Your task to perform on an android device: Open accessibility settings Image 0: 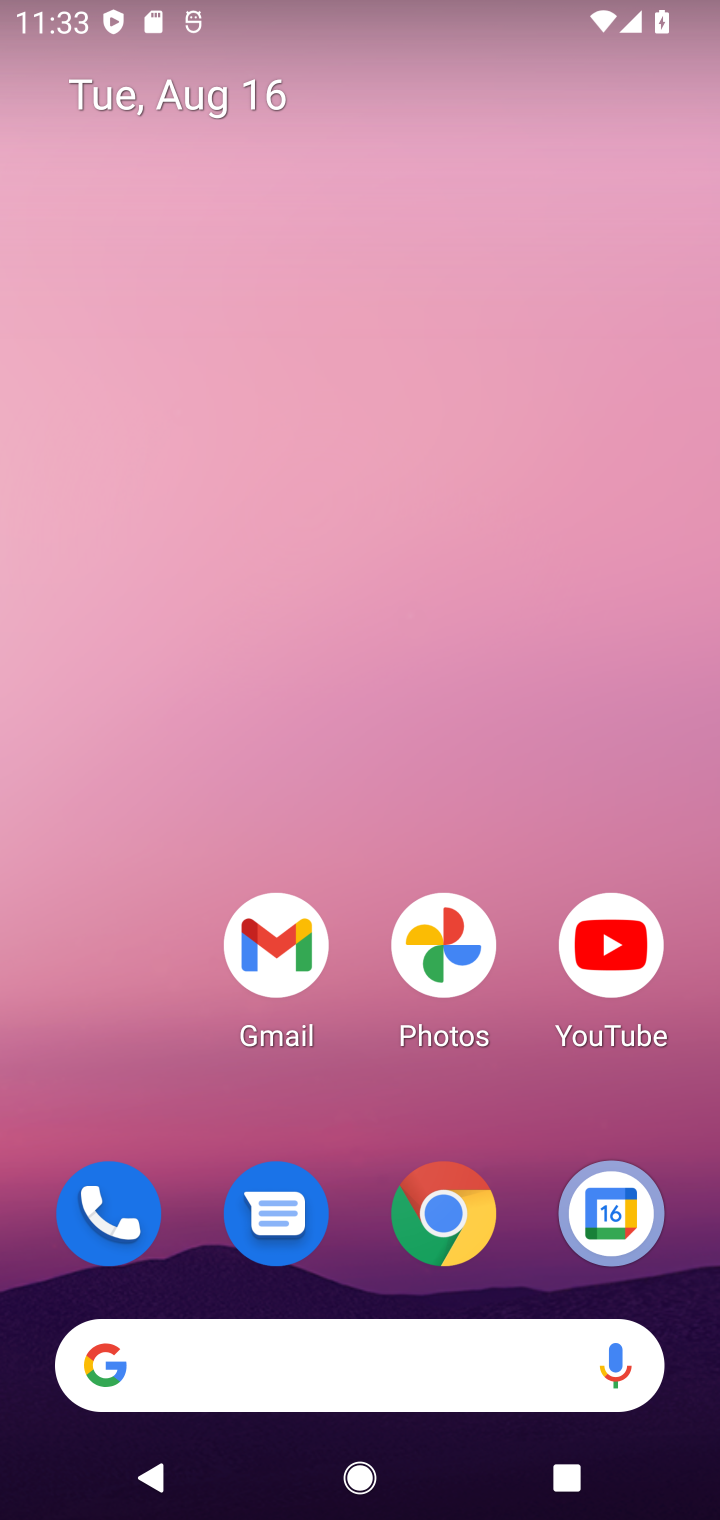
Step 0: drag from (504, 756) to (448, 47)
Your task to perform on an android device: Open accessibility settings Image 1: 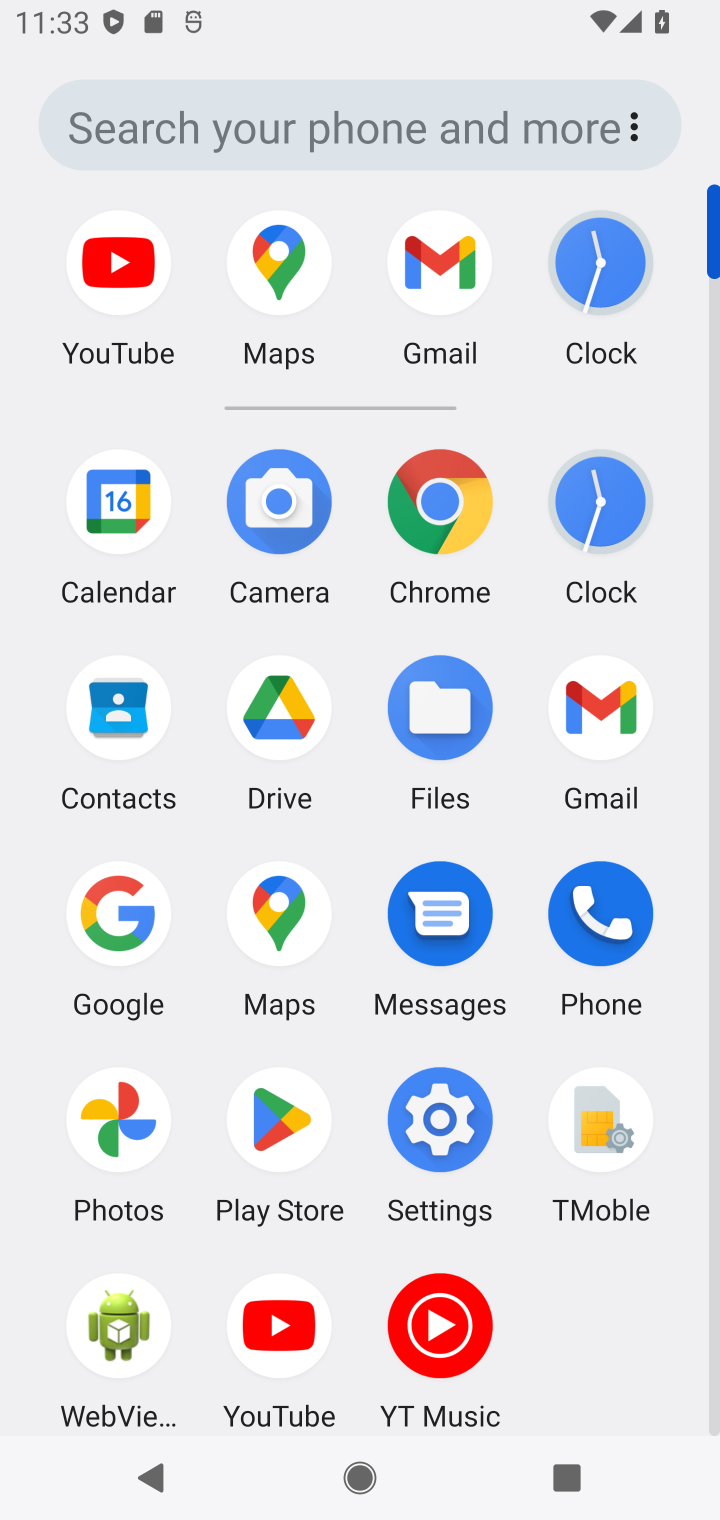
Step 1: click (450, 1126)
Your task to perform on an android device: Open accessibility settings Image 2: 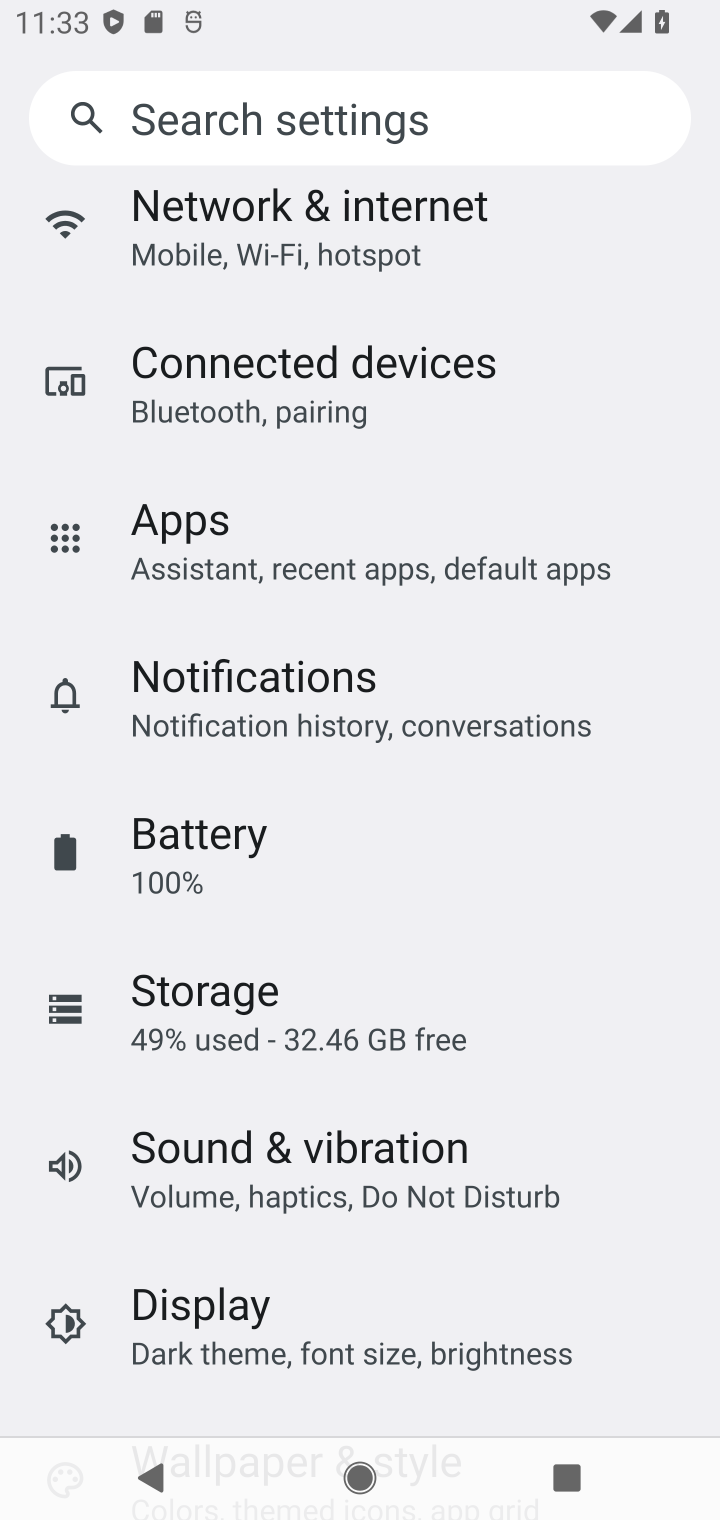
Step 2: drag from (346, 1195) to (404, 319)
Your task to perform on an android device: Open accessibility settings Image 3: 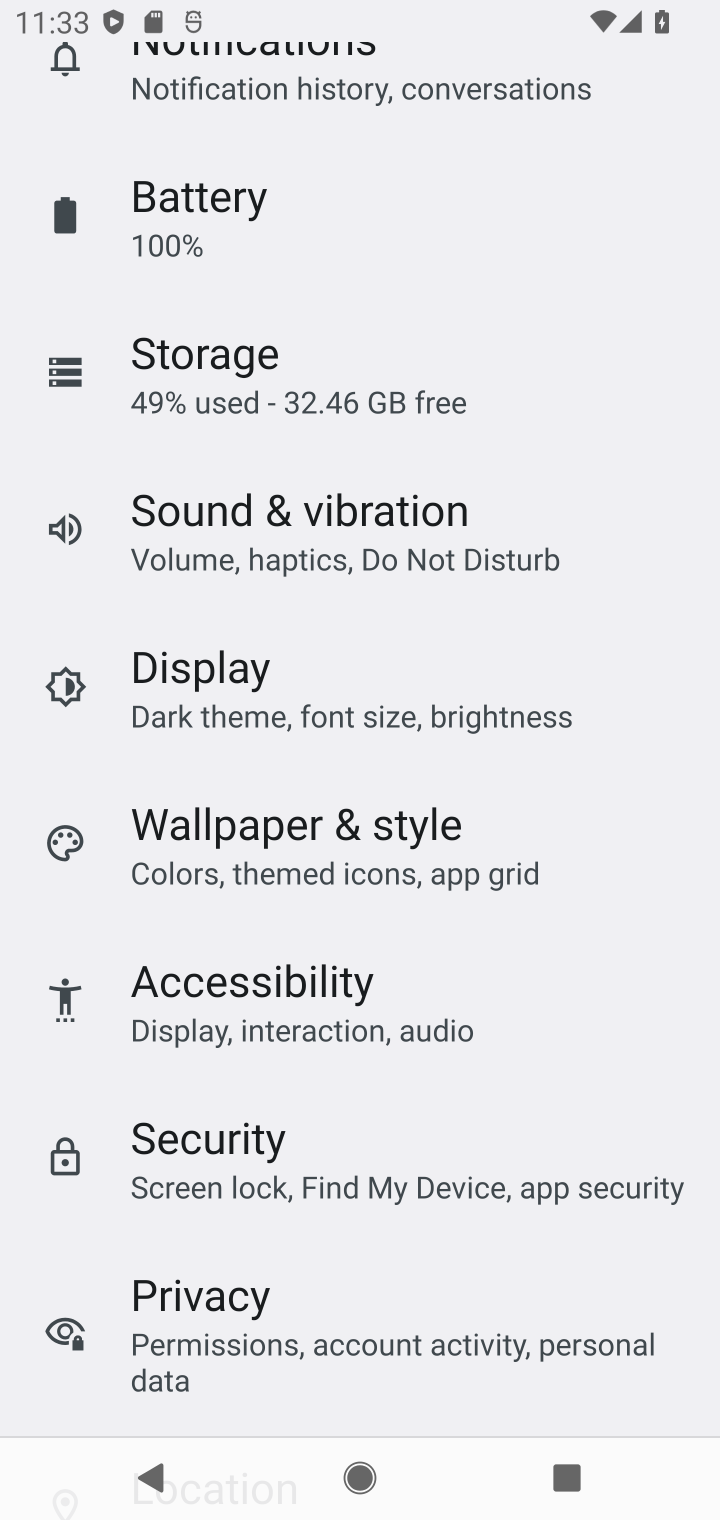
Step 3: click (209, 984)
Your task to perform on an android device: Open accessibility settings Image 4: 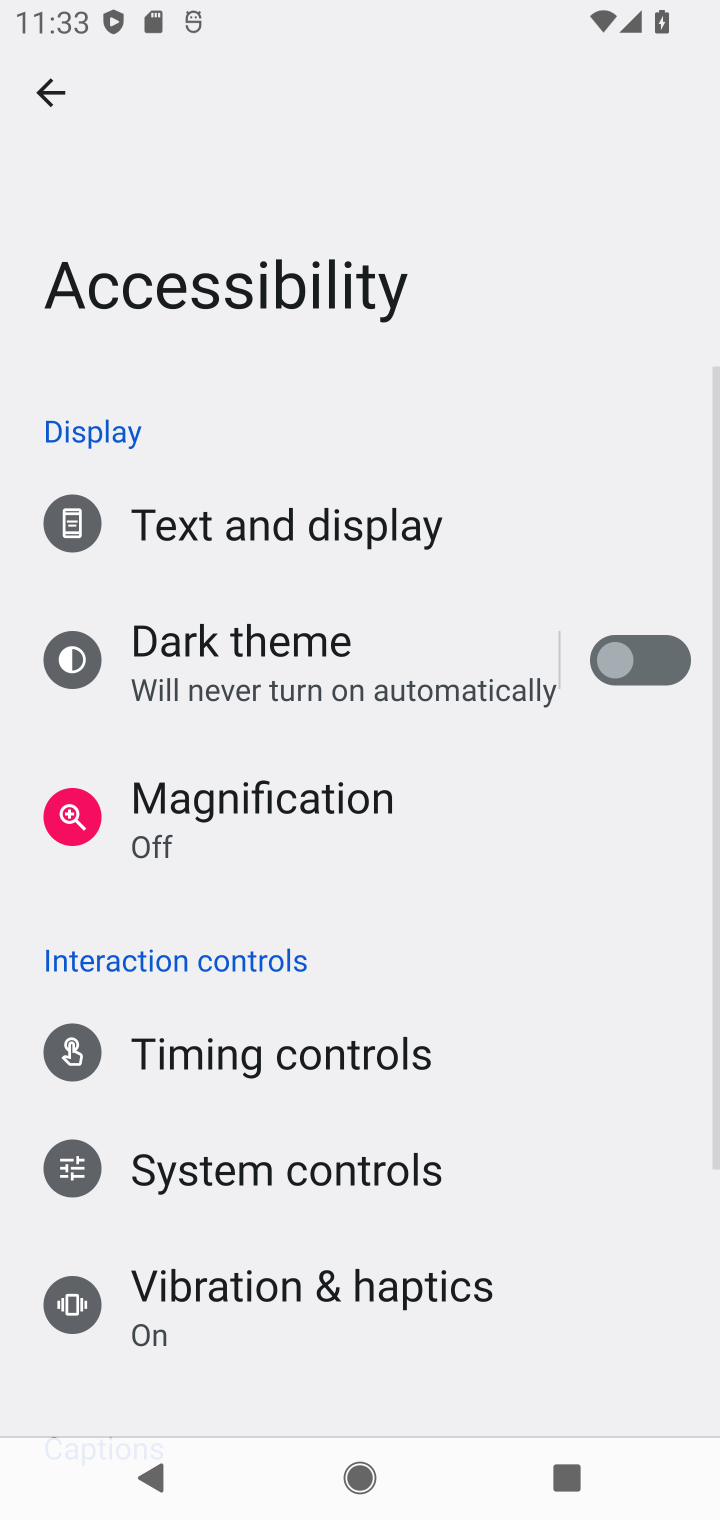
Step 4: task complete